Your task to perform on an android device: Go to network settings Image 0: 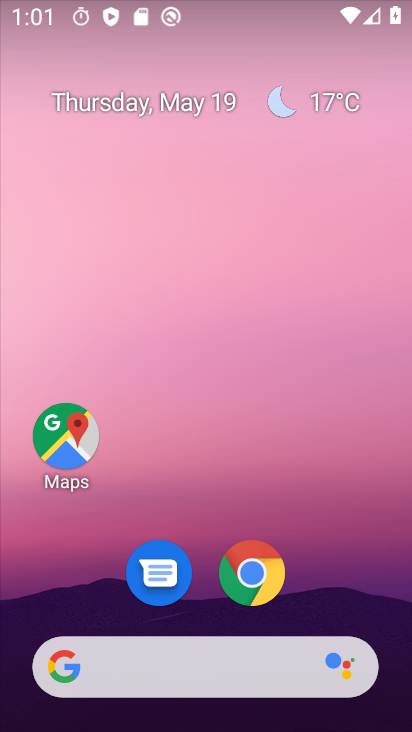
Step 0: drag from (169, 607) to (218, 120)
Your task to perform on an android device: Go to network settings Image 1: 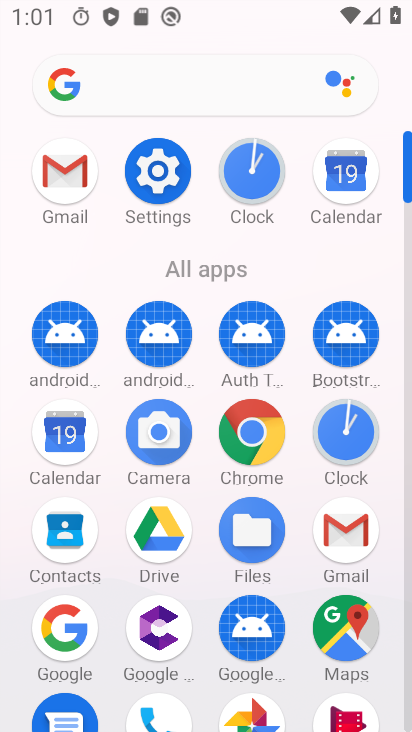
Step 1: click (165, 144)
Your task to perform on an android device: Go to network settings Image 2: 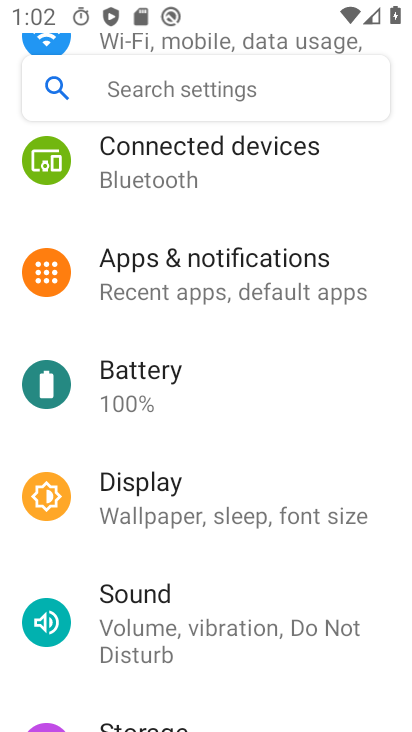
Step 2: drag from (180, 189) to (207, 714)
Your task to perform on an android device: Go to network settings Image 3: 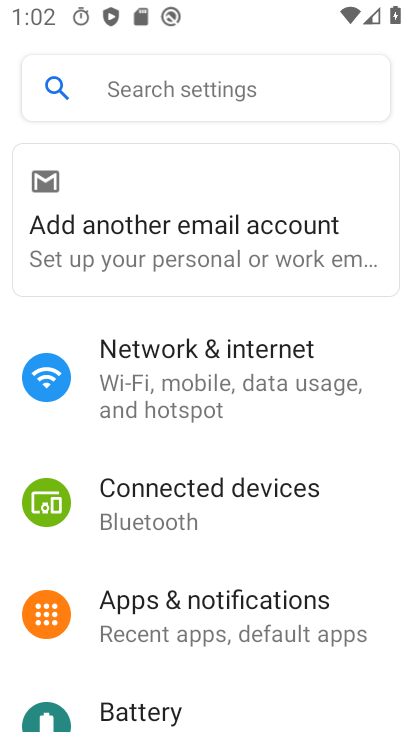
Step 3: click (205, 384)
Your task to perform on an android device: Go to network settings Image 4: 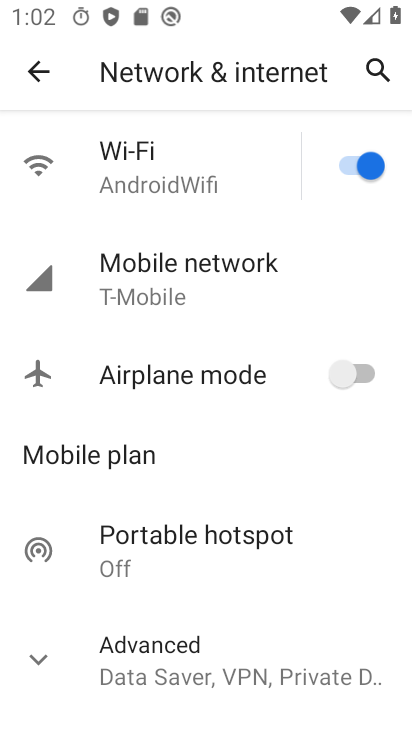
Step 4: task complete